Your task to perform on an android device: Open calendar and show me the fourth week of next month Image 0: 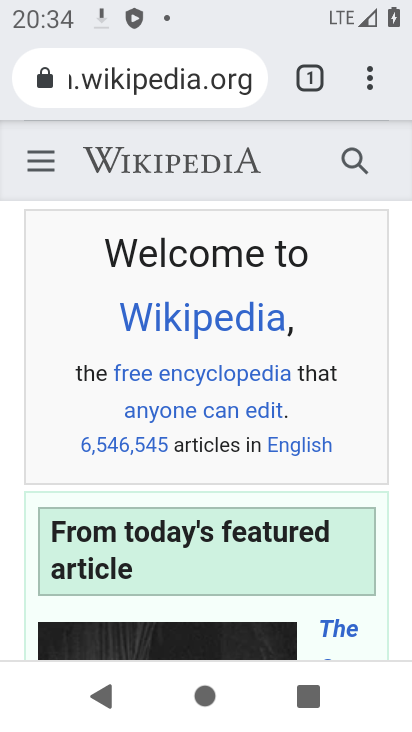
Step 0: press back button
Your task to perform on an android device: Open calendar and show me the fourth week of next month Image 1: 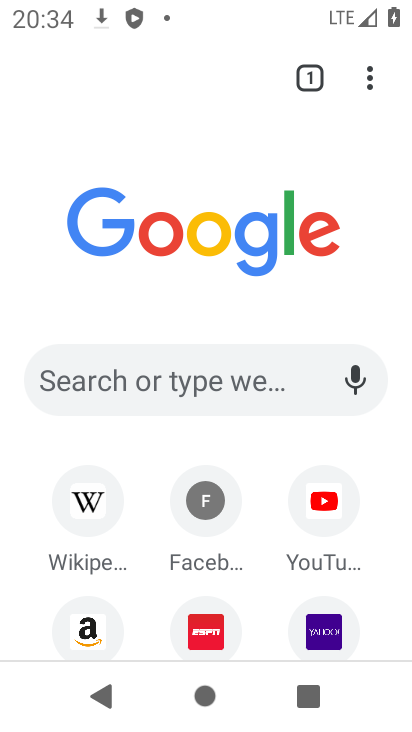
Step 1: press back button
Your task to perform on an android device: Open calendar and show me the fourth week of next month Image 2: 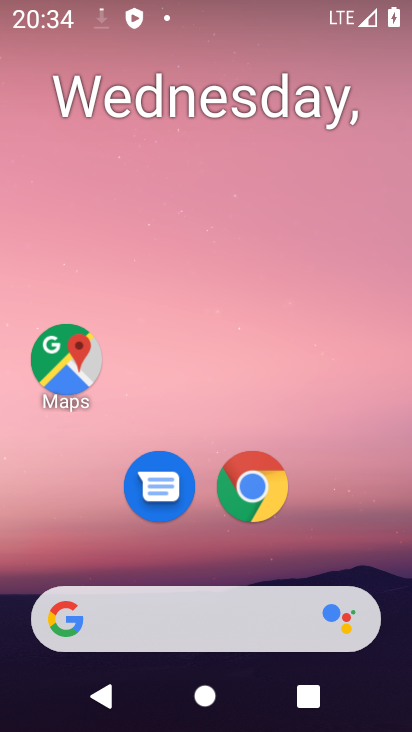
Step 2: drag from (234, 542) to (290, 0)
Your task to perform on an android device: Open calendar and show me the fourth week of next month Image 3: 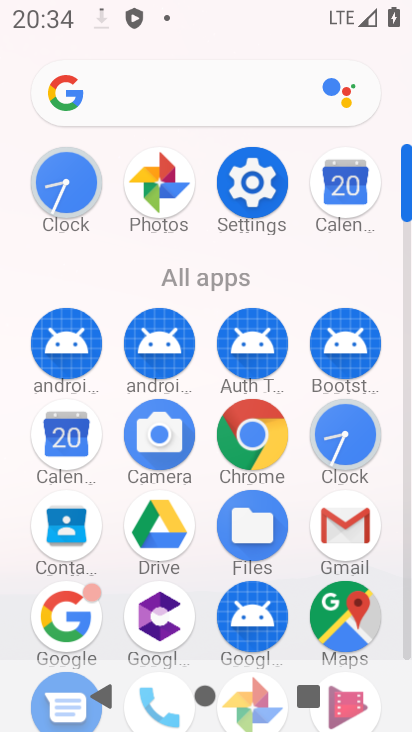
Step 3: click (54, 436)
Your task to perform on an android device: Open calendar and show me the fourth week of next month Image 4: 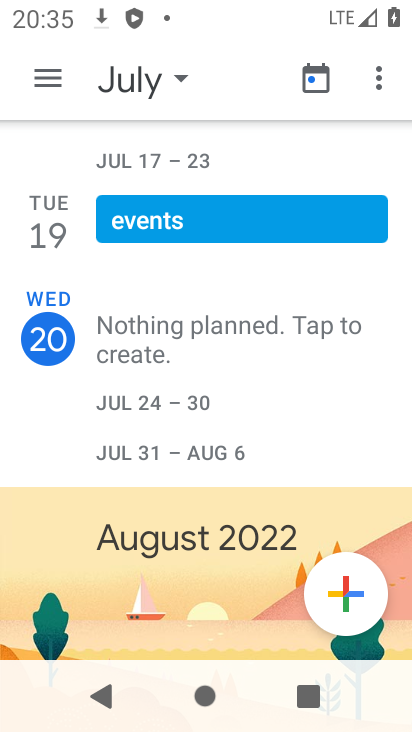
Step 4: click (148, 78)
Your task to perform on an android device: Open calendar and show me the fourth week of next month Image 5: 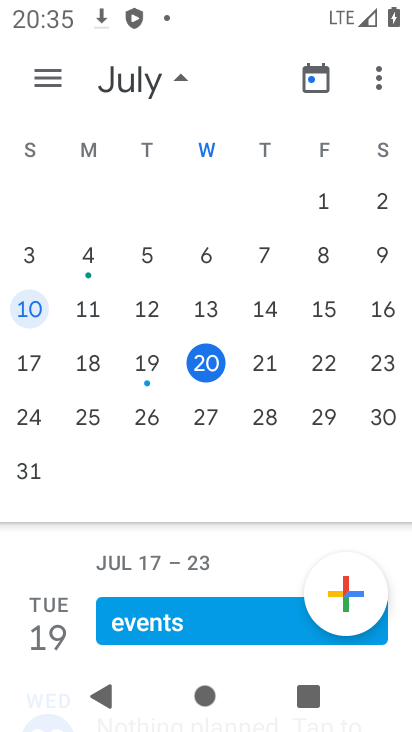
Step 5: drag from (362, 351) to (2, 344)
Your task to perform on an android device: Open calendar and show me the fourth week of next month Image 6: 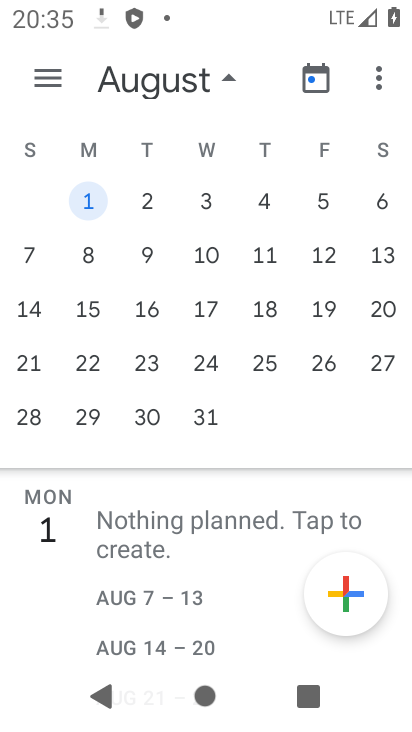
Step 6: click (80, 361)
Your task to perform on an android device: Open calendar and show me the fourth week of next month Image 7: 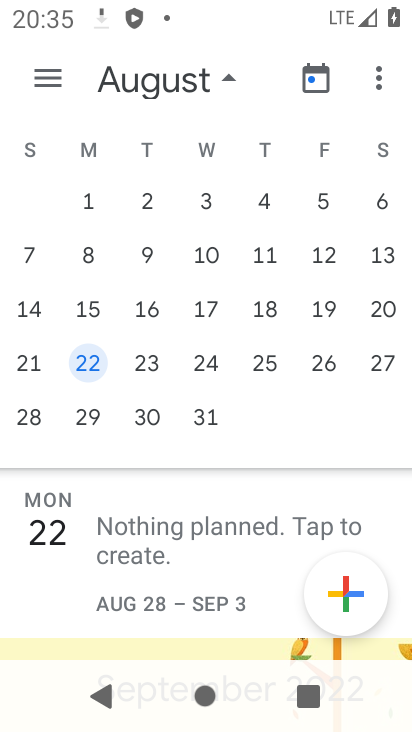
Step 7: task complete